Your task to perform on an android device: delete browsing data in the chrome app Image 0: 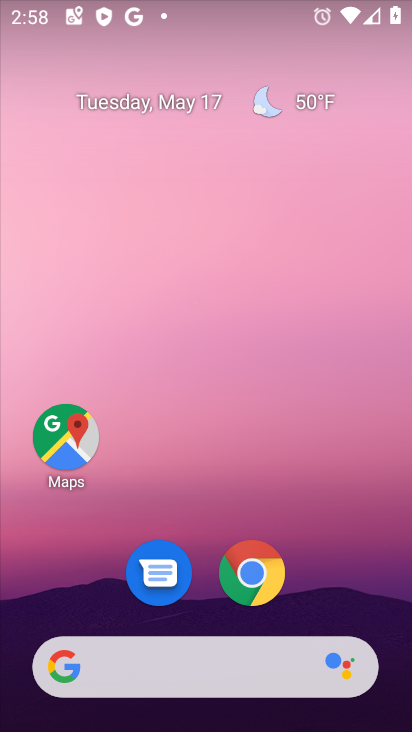
Step 0: click (280, 583)
Your task to perform on an android device: delete browsing data in the chrome app Image 1: 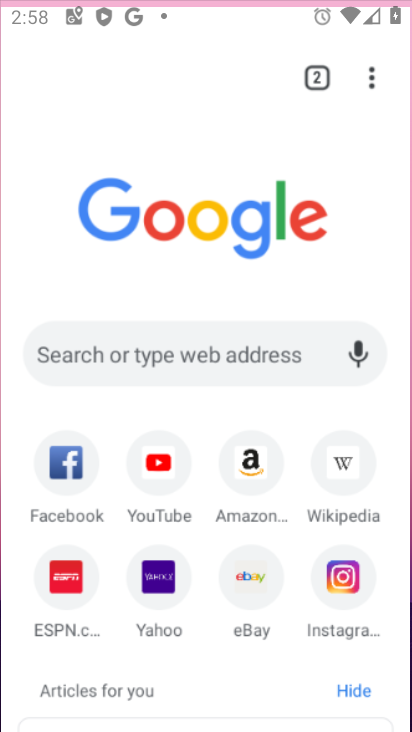
Step 1: click (265, 582)
Your task to perform on an android device: delete browsing data in the chrome app Image 2: 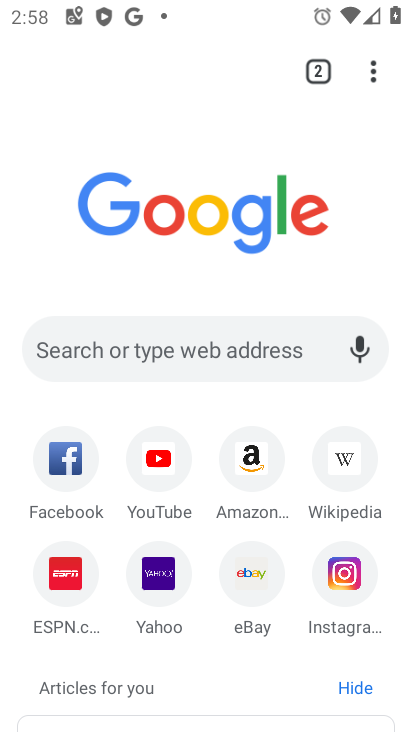
Step 2: task complete